Your task to perform on an android device: open chrome and create a bookmark for the current page Image 0: 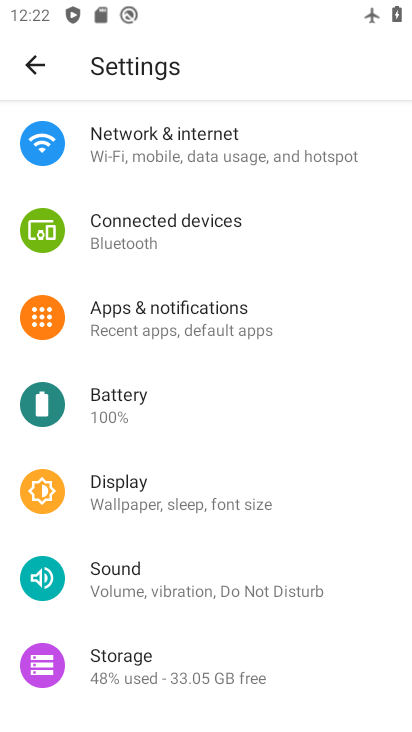
Step 0: press home button
Your task to perform on an android device: open chrome and create a bookmark for the current page Image 1: 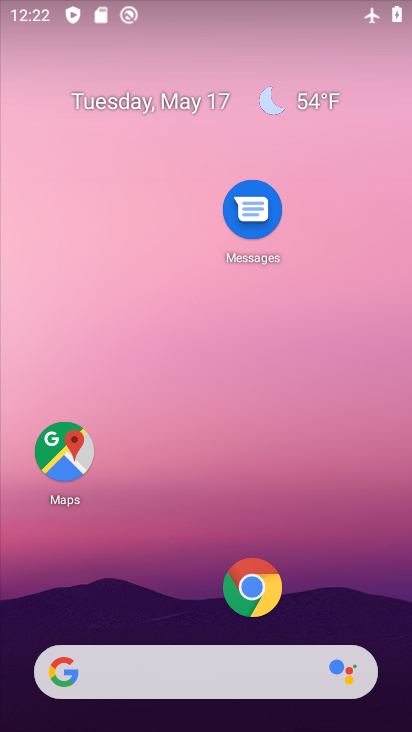
Step 1: click (254, 585)
Your task to perform on an android device: open chrome and create a bookmark for the current page Image 2: 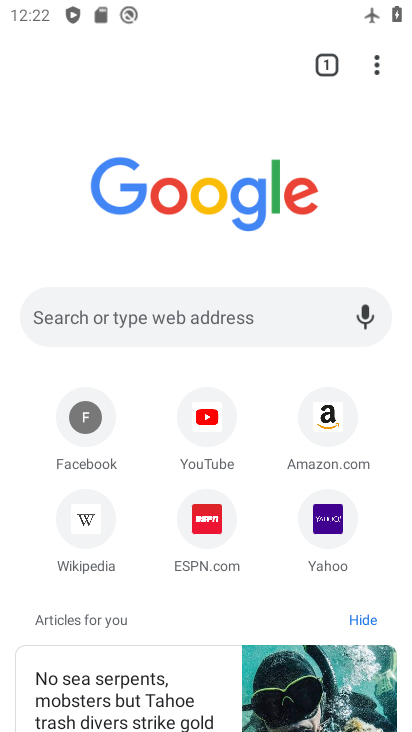
Step 2: click (379, 58)
Your task to perform on an android device: open chrome and create a bookmark for the current page Image 3: 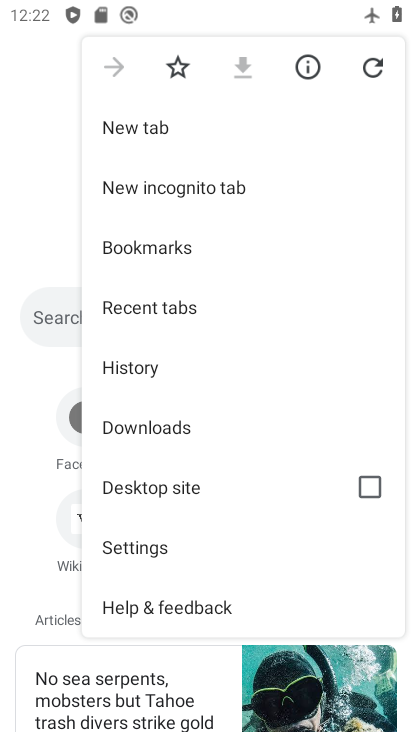
Step 3: click (178, 67)
Your task to perform on an android device: open chrome and create a bookmark for the current page Image 4: 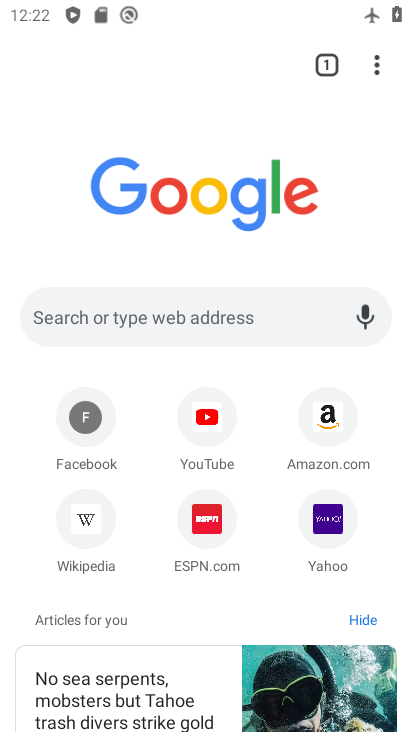
Step 4: task complete